Your task to perform on an android device: turn smart compose on in the gmail app Image 0: 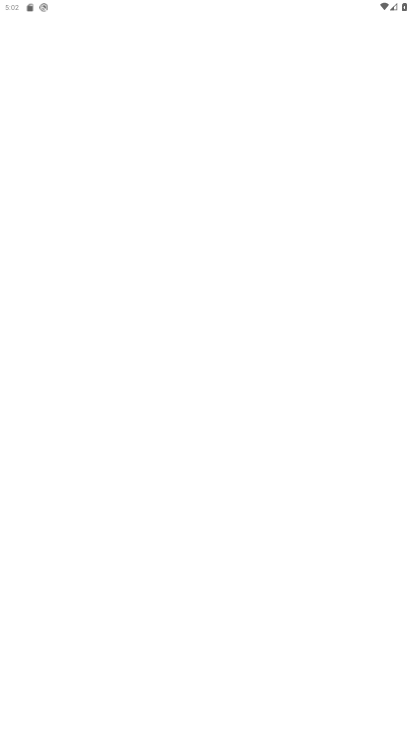
Step 0: press home button
Your task to perform on an android device: turn smart compose on in the gmail app Image 1: 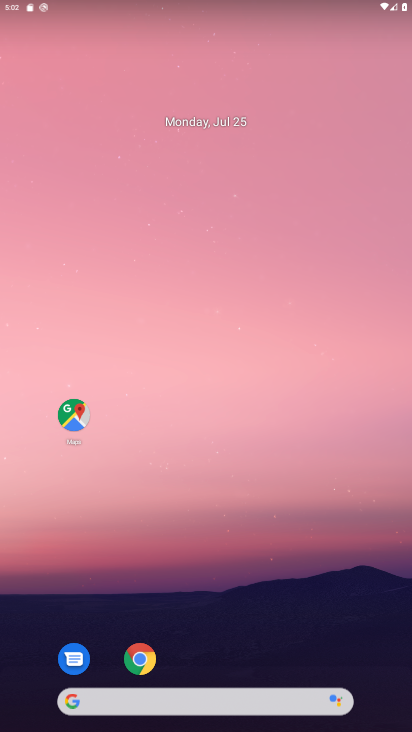
Step 1: drag from (249, 658) to (178, 46)
Your task to perform on an android device: turn smart compose on in the gmail app Image 2: 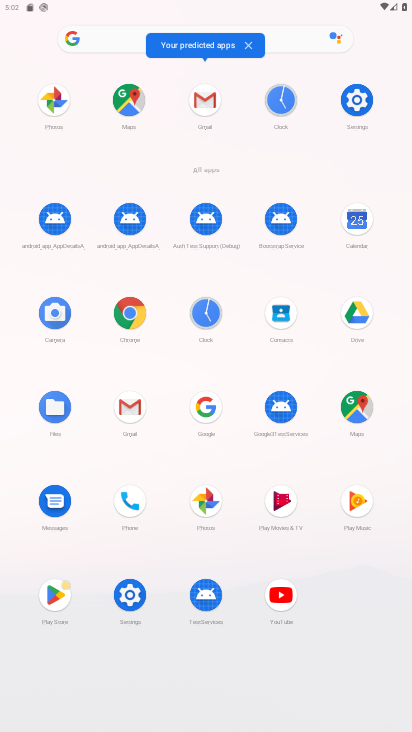
Step 2: click (206, 98)
Your task to perform on an android device: turn smart compose on in the gmail app Image 3: 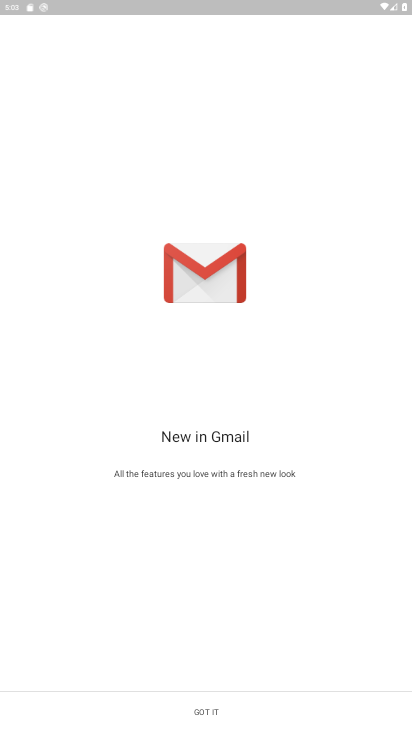
Step 3: click (225, 707)
Your task to perform on an android device: turn smart compose on in the gmail app Image 4: 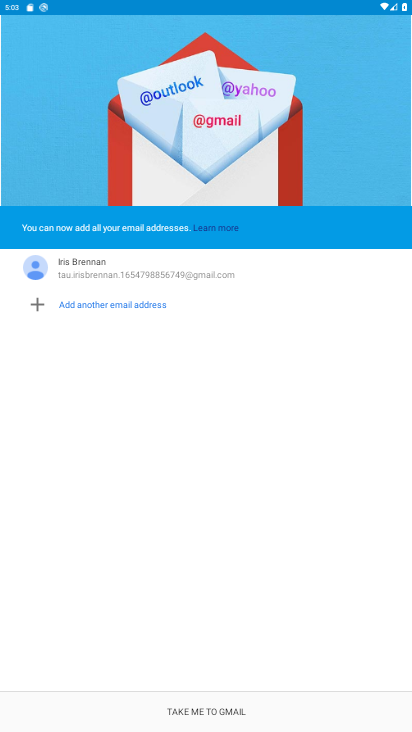
Step 4: click (225, 707)
Your task to perform on an android device: turn smart compose on in the gmail app Image 5: 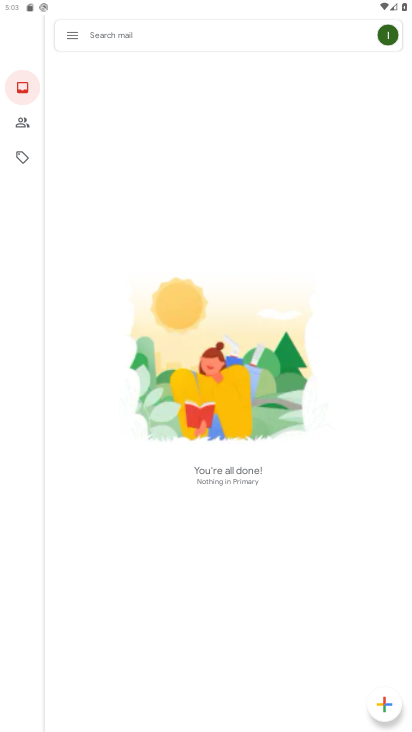
Step 5: click (70, 36)
Your task to perform on an android device: turn smart compose on in the gmail app Image 6: 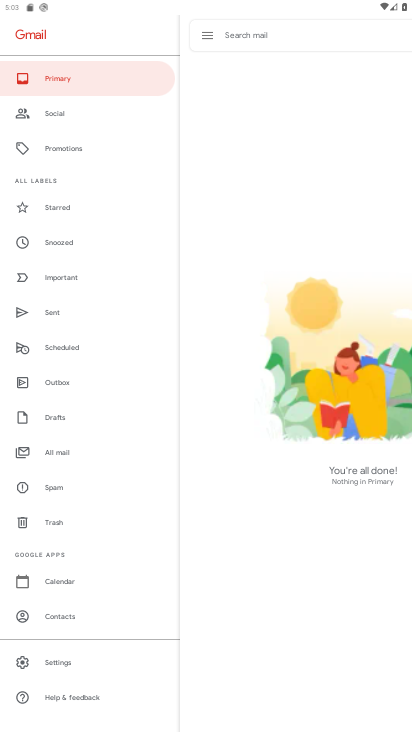
Step 6: click (71, 669)
Your task to perform on an android device: turn smart compose on in the gmail app Image 7: 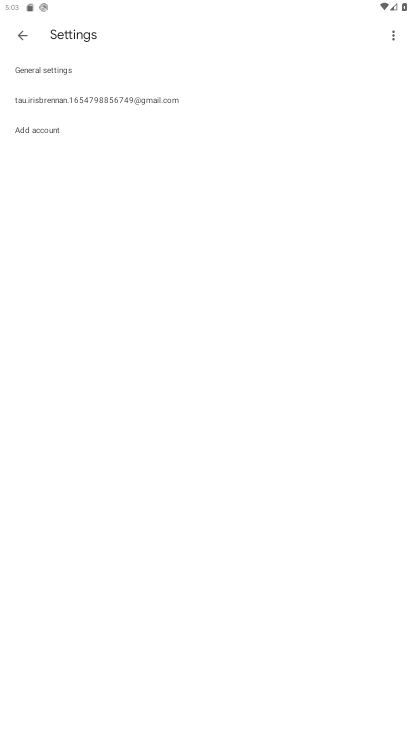
Step 7: click (183, 100)
Your task to perform on an android device: turn smart compose on in the gmail app Image 8: 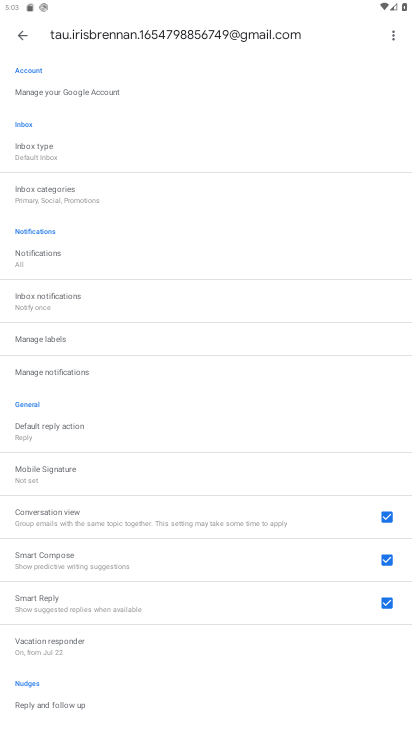
Step 8: task complete